Your task to perform on an android device: toggle airplane mode Image 0: 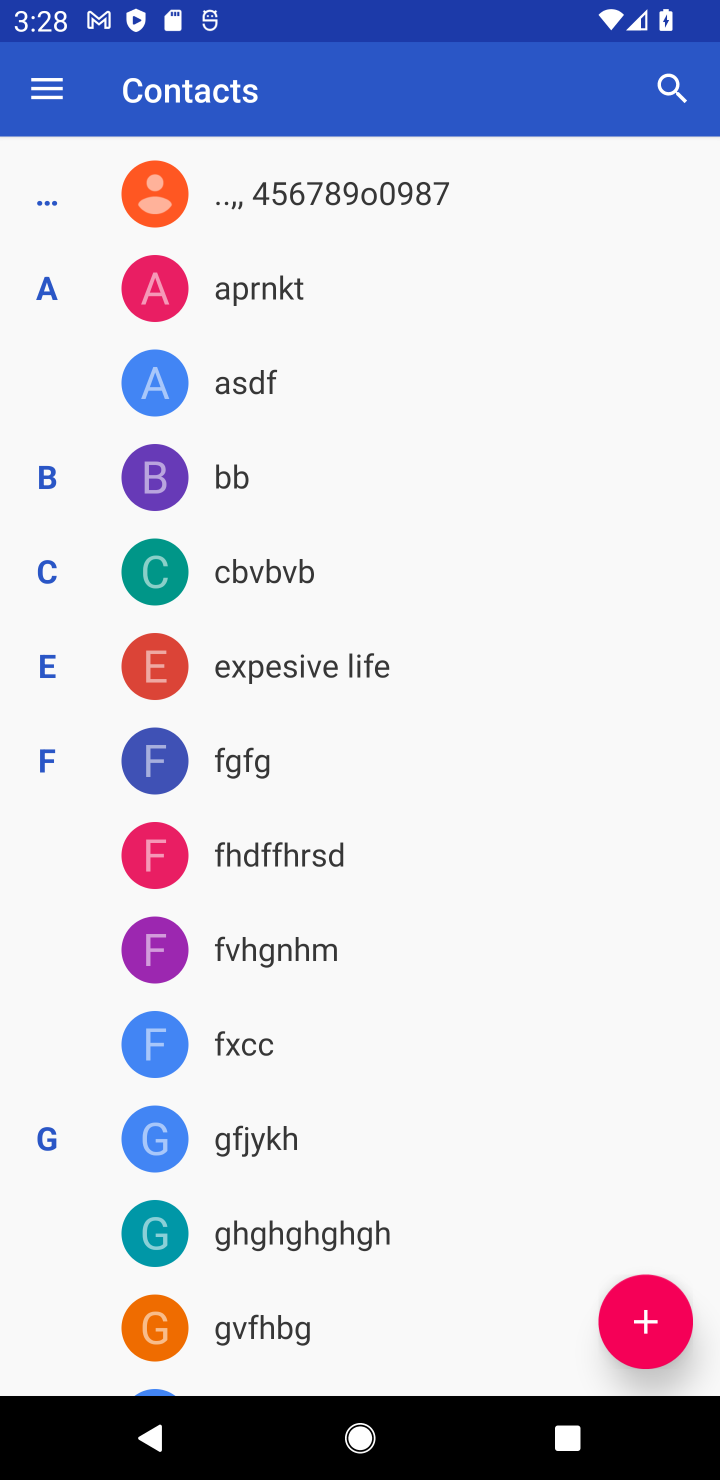
Step 0: press home button
Your task to perform on an android device: toggle airplane mode Image 1: 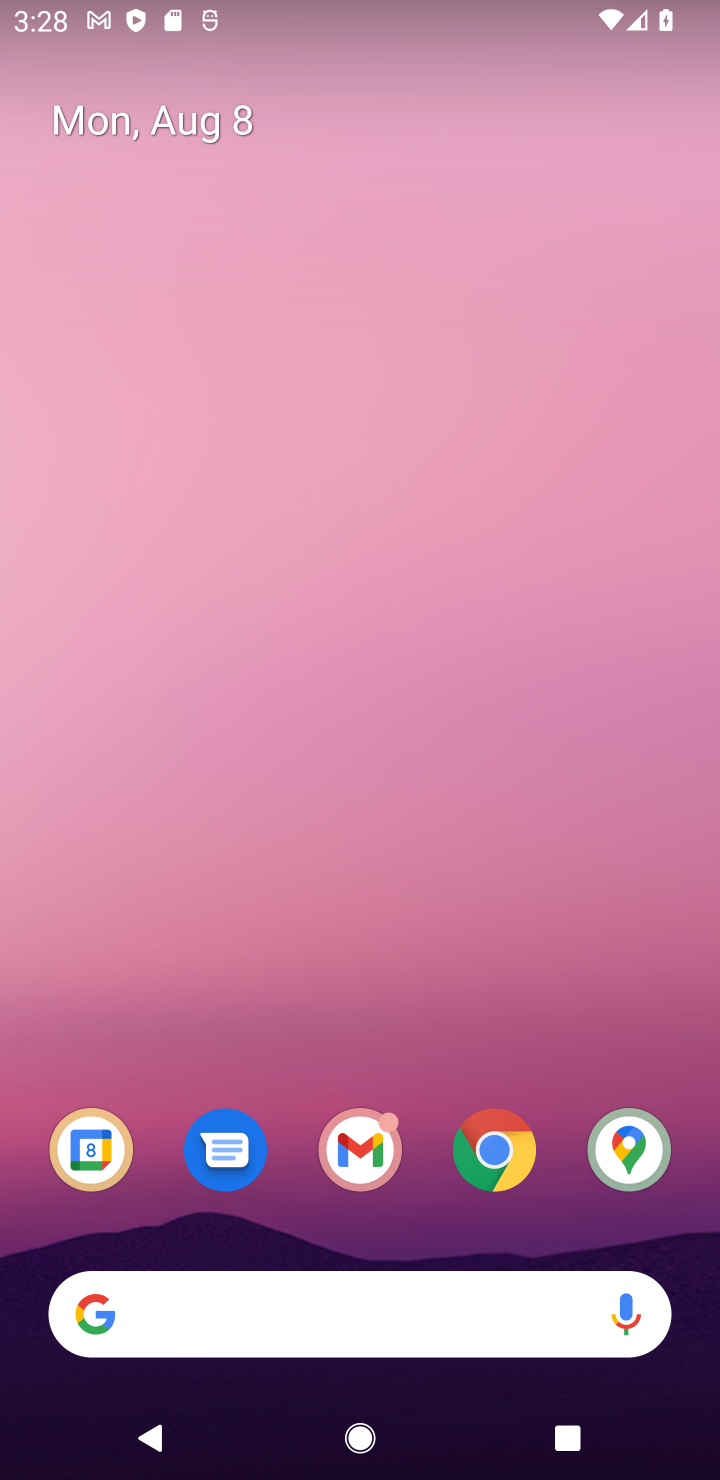
Step 1: drag from (553, 1230) to (489, 454)
Your task to perform on an android device: toggle airplane mode Image 2: 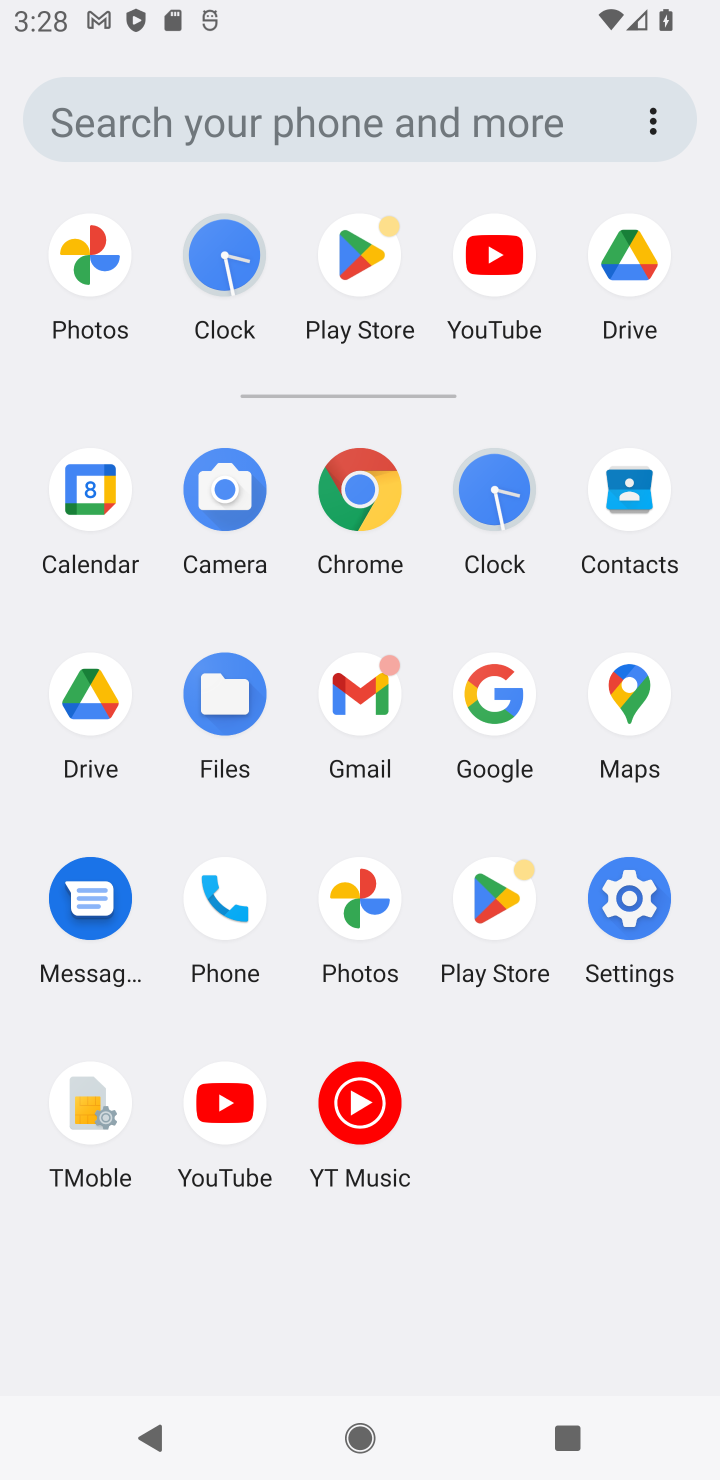
Step 2: click (653, 907)
Your task to perform on an android device: toggle airplane mode Image 3: 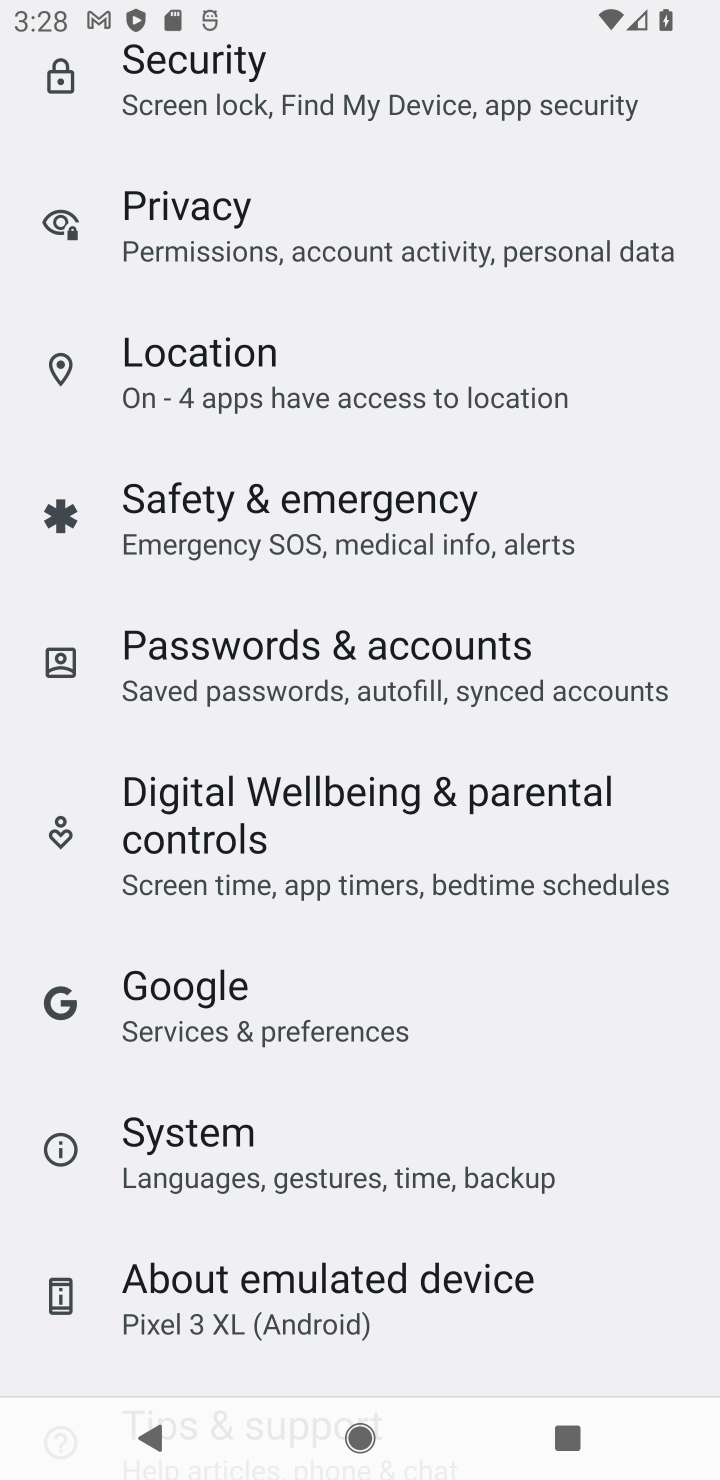
Step 3: drag from (520, 390) to (398, 1229)
Your task to perform on an android device: toggle airplane mode Image 4: 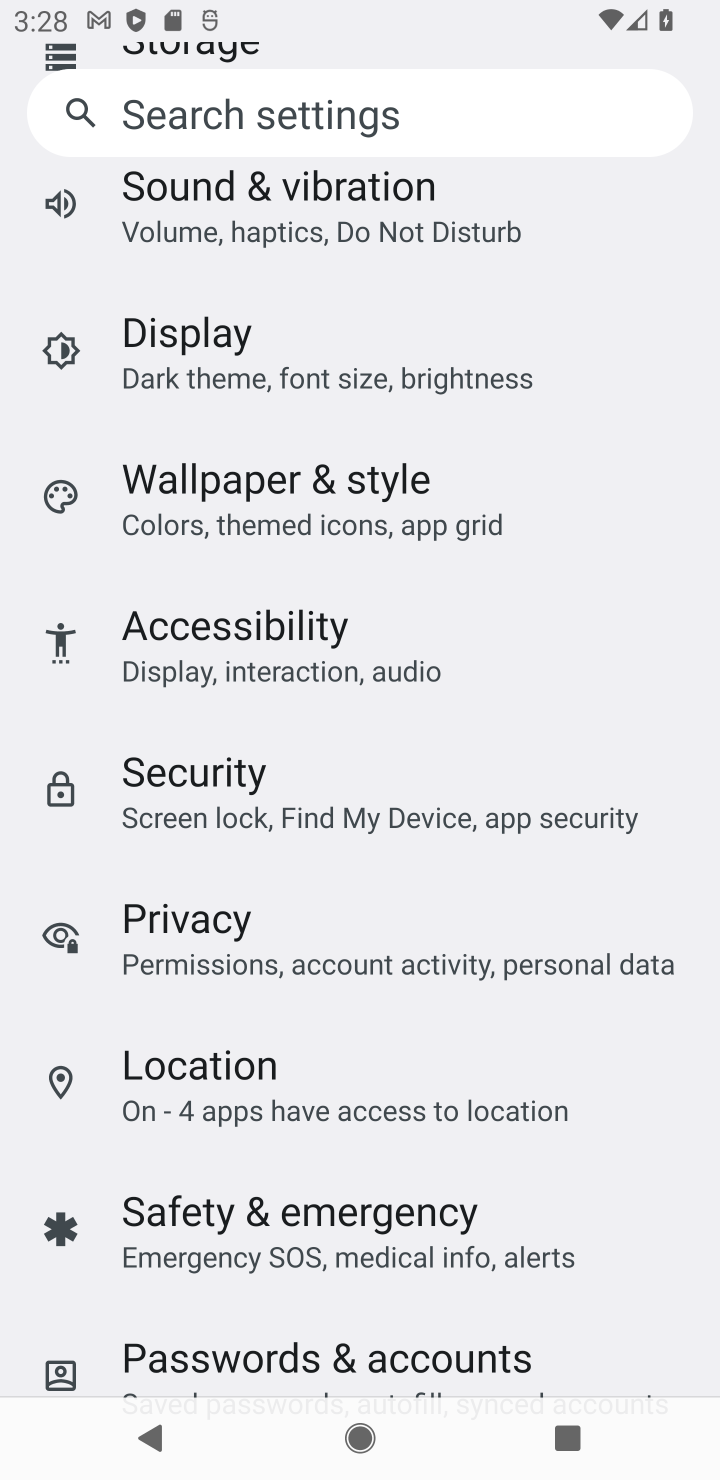
Step 4: drag from (423, 419) to (416, 1129)
Your task to perform on an android device: toggle airplane mode Image 5: 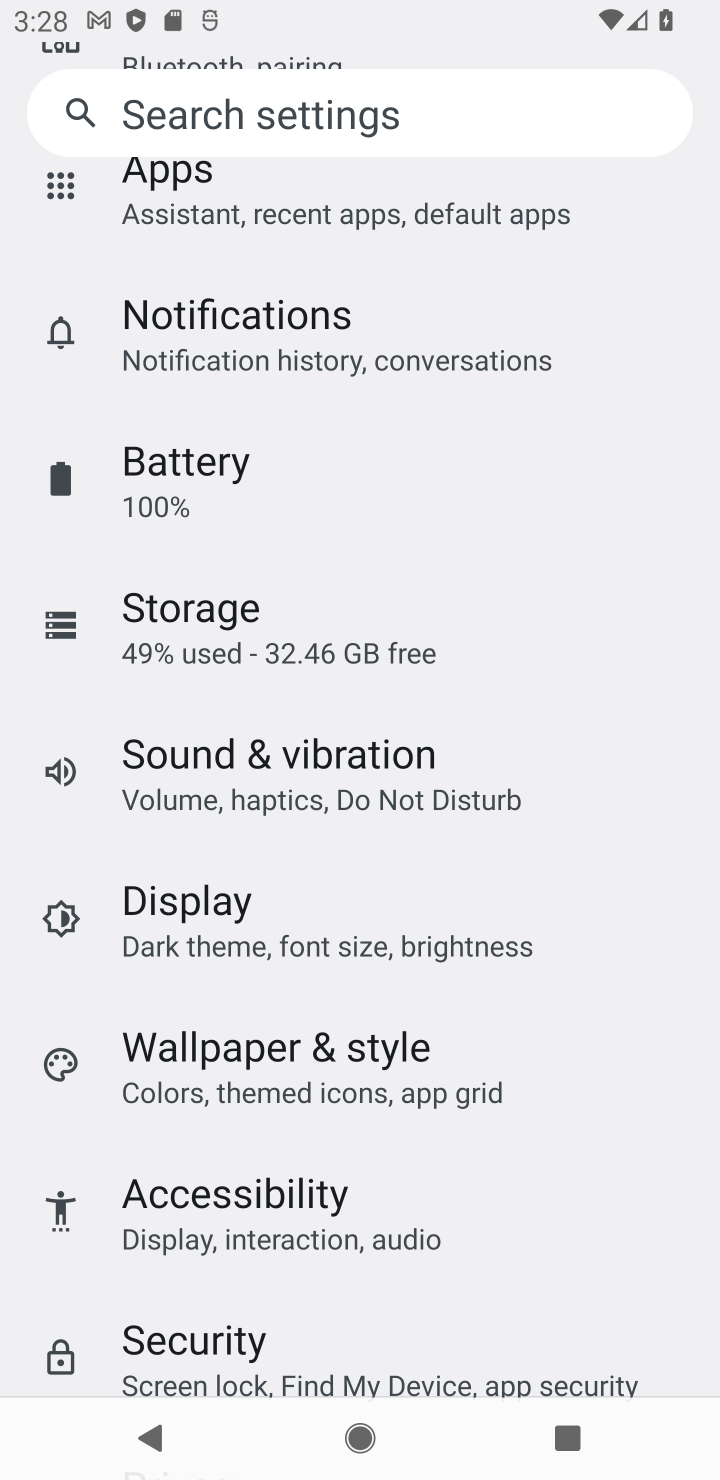
Step 5: drag from (299, 235) to (333, 824)
Your task to perform on an android device: toggle airplane mode Image 6: 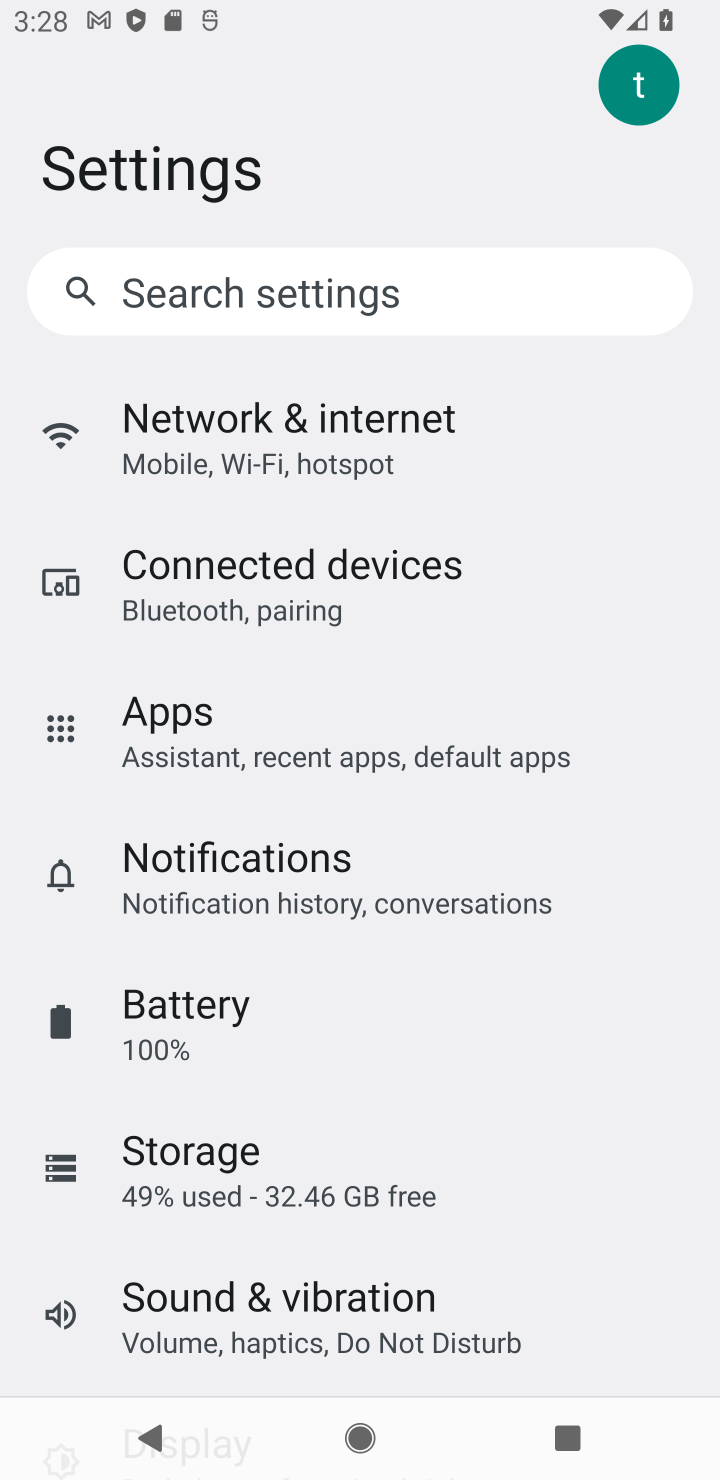
Step 6: click (407, 180)
Your task to perform on an android device: toggle airplane mode Image 7: 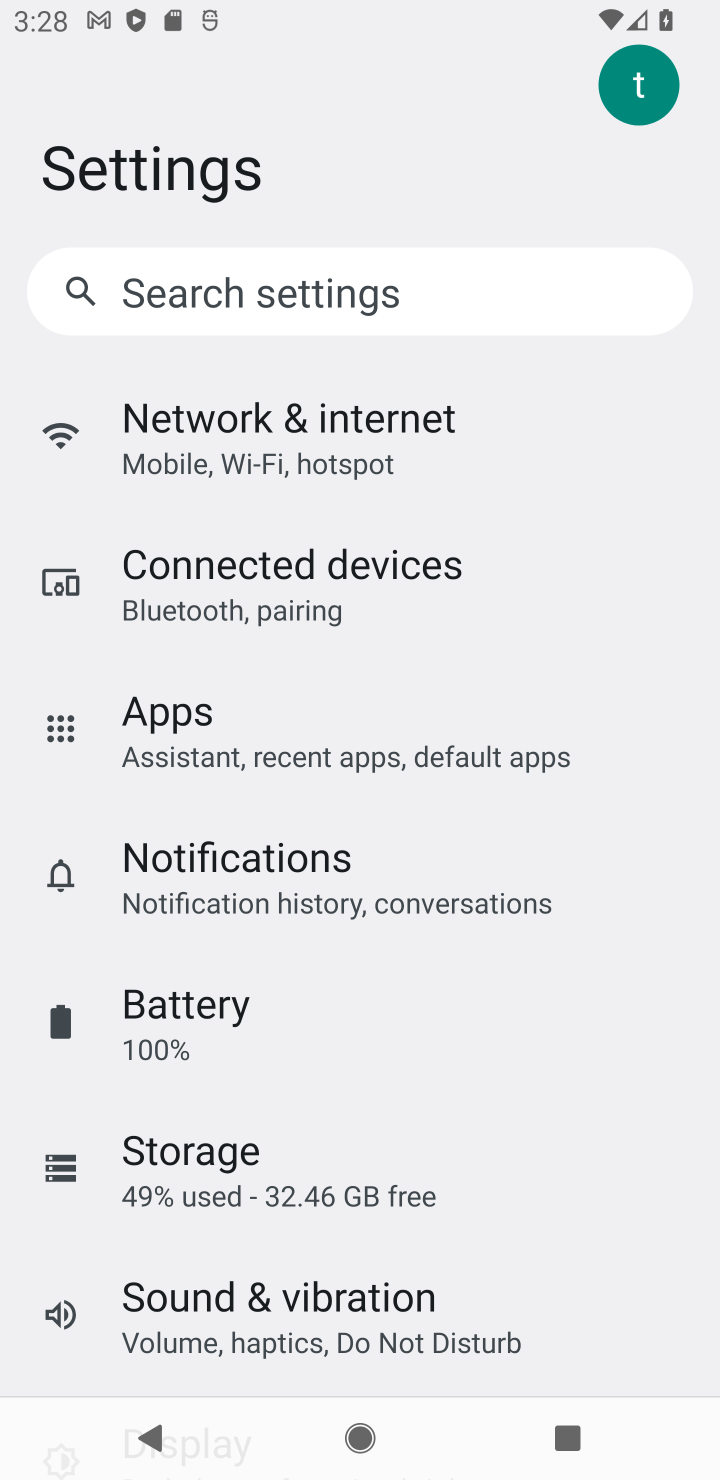
Step 7: click (412, 441)
Your task to perform on an android device: toggle airplane mode Image 8: 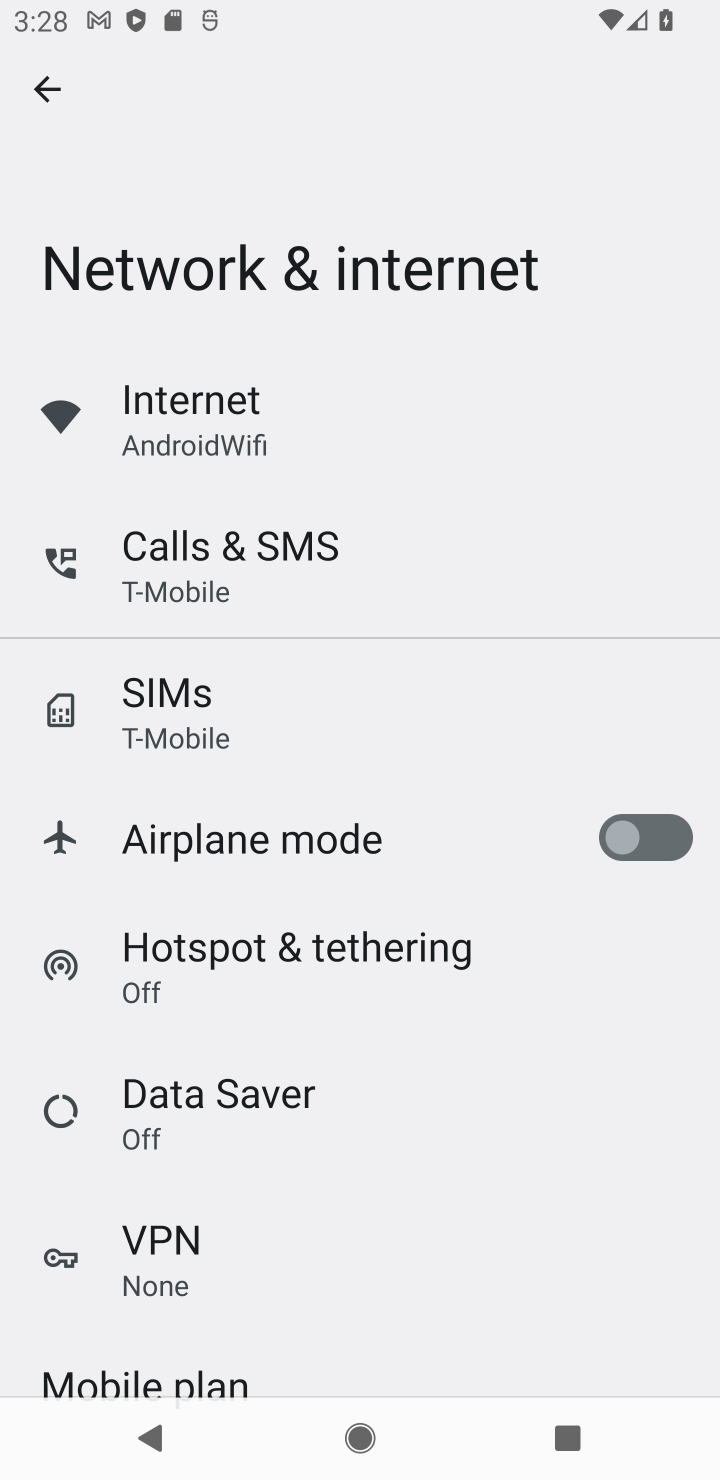
Step 8: task complete